Your task to perform on an android device: Open display settings Image 0: 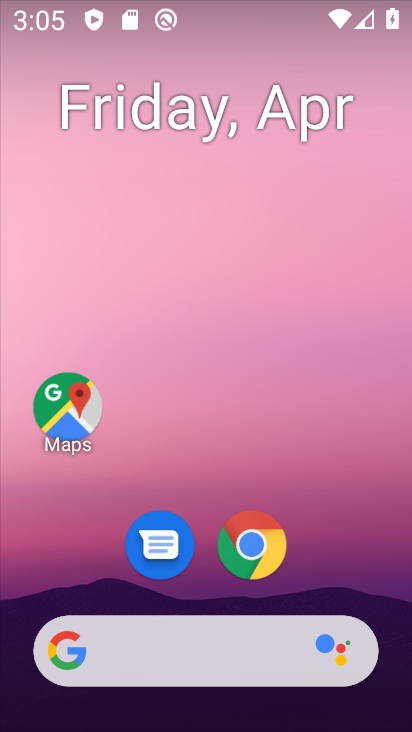
Step 0: press home button
Your task to perform on an android device: Open display settings Image 1: 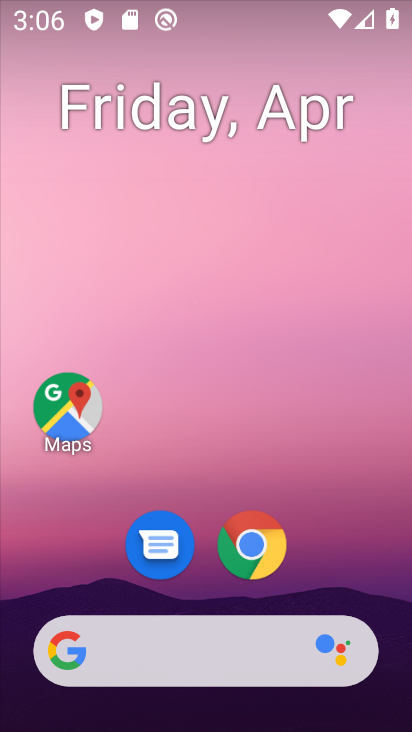
Step 1: drag from (342, 439) to (332, 86)
Your task to perform on an android device: Open display settings Image 2: 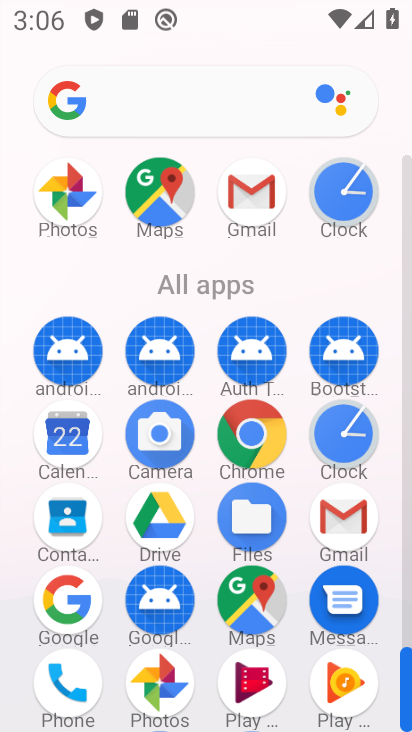
Step 2: drag from (404, 625) to (398, 512)
Your task to perform on an android device: Open display settings Image 3: 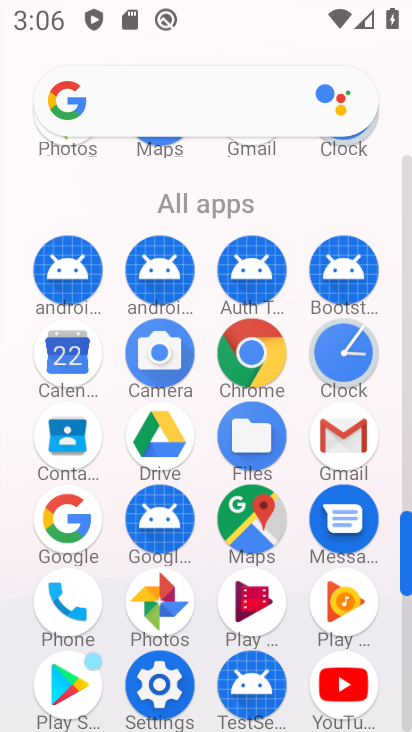
Step 3: click (156, 685)
Your task to perform on an android device: Open display settings Image 4: 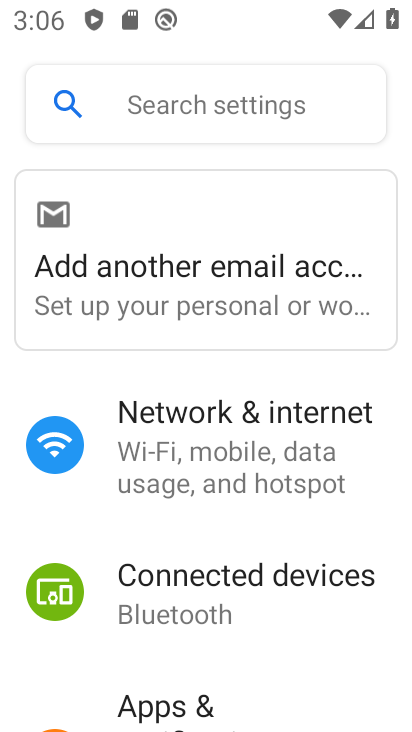
Step 4: drag from (375, 641) to (386, 217)
Your task to perform on an android device: Open display settings Image 5: 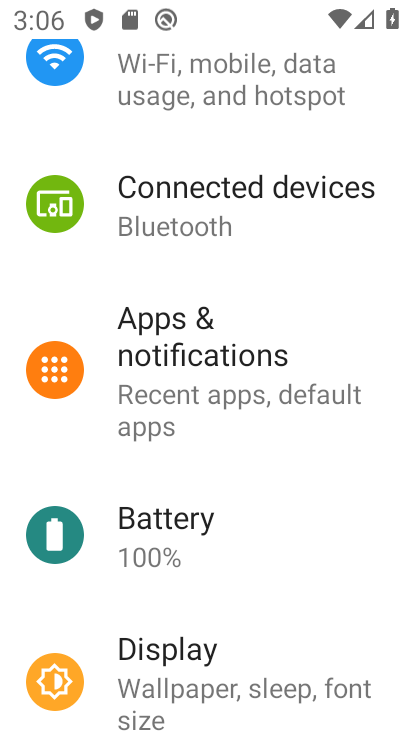
Step 5: drag from (376, 580) to (376, 217)
Your task to perform on an android device: Open display settings Image 6: 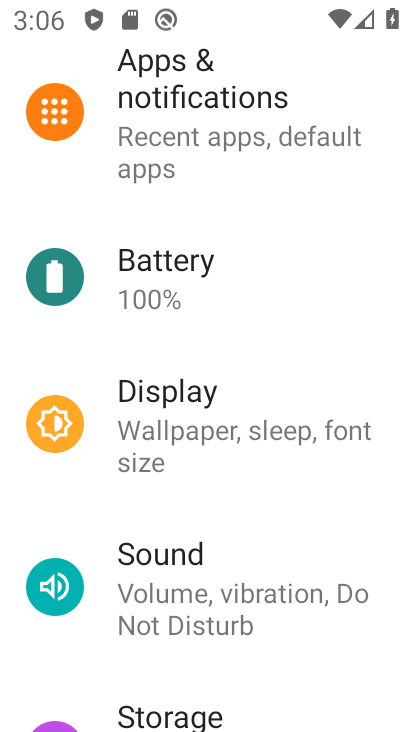
Step 6: click (168, 418)
Your task to perform on an android device: Open display settings Image 7: 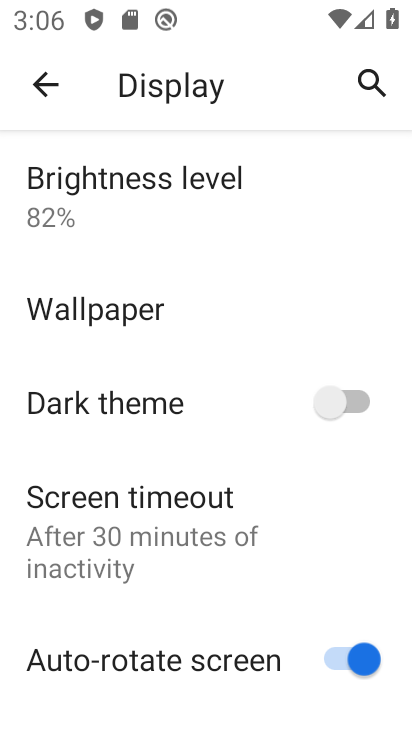
Step 7: drag from (257, 610) to (277, 220)
Your task to perform on an android device: Open display settings Image 8: 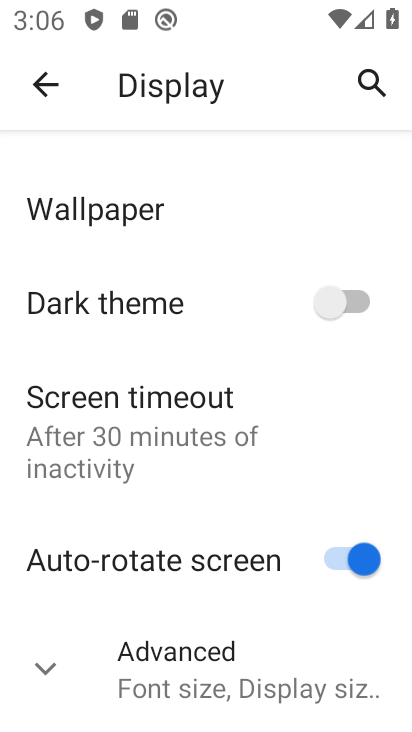
Step 8: click (40, 665)
Your task to perform on an android device: Open display settings Image 9: 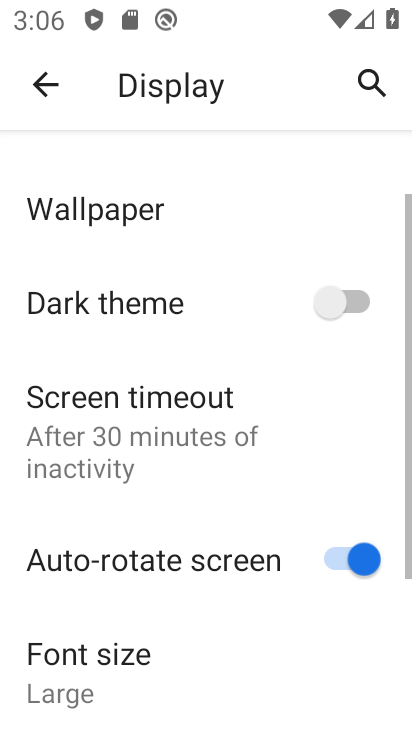
Step 9: task complete